Your task to perform on an android device: uninstall "Microsoft Outlook" Image 0: 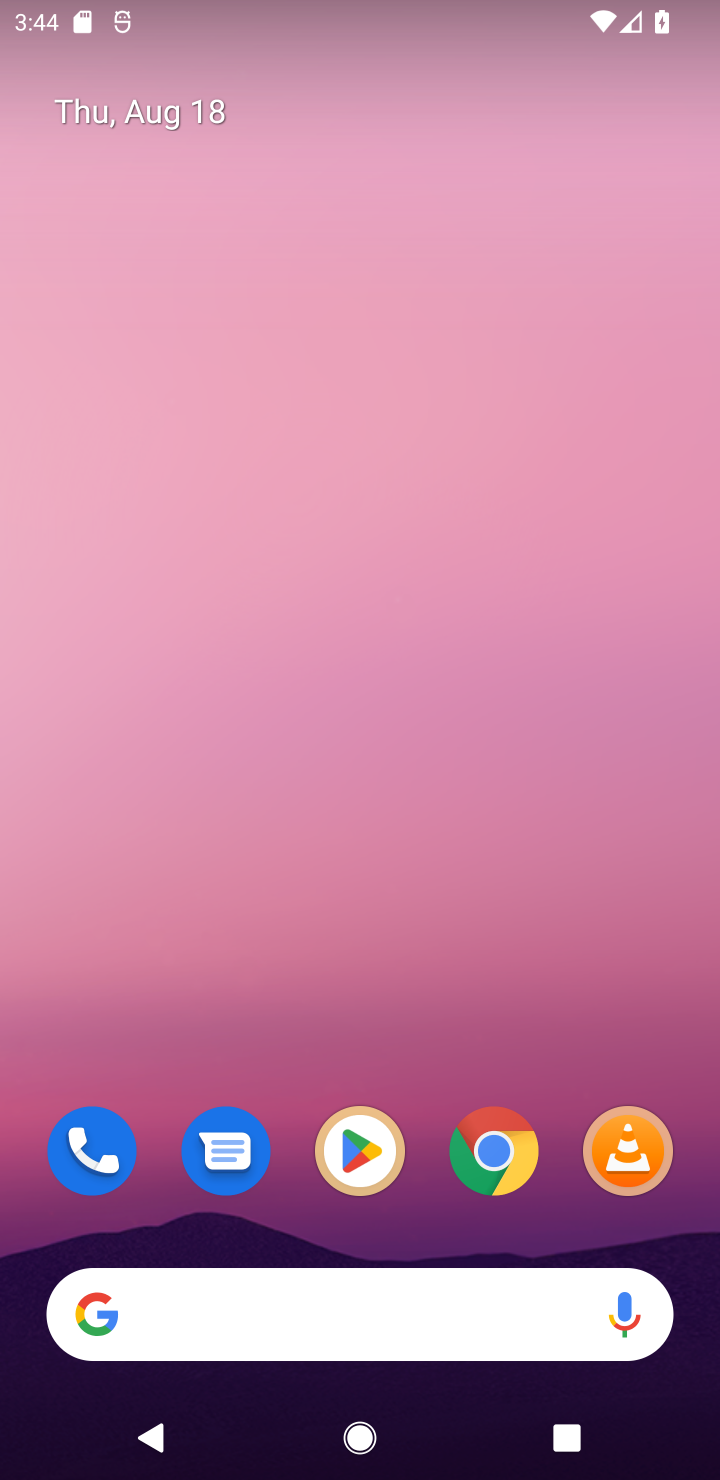
Step 0: drag from (429, 1252) to (440, 208)
Your task to perform on an android device: uninstall "Microsoft Outlook" Image 1: 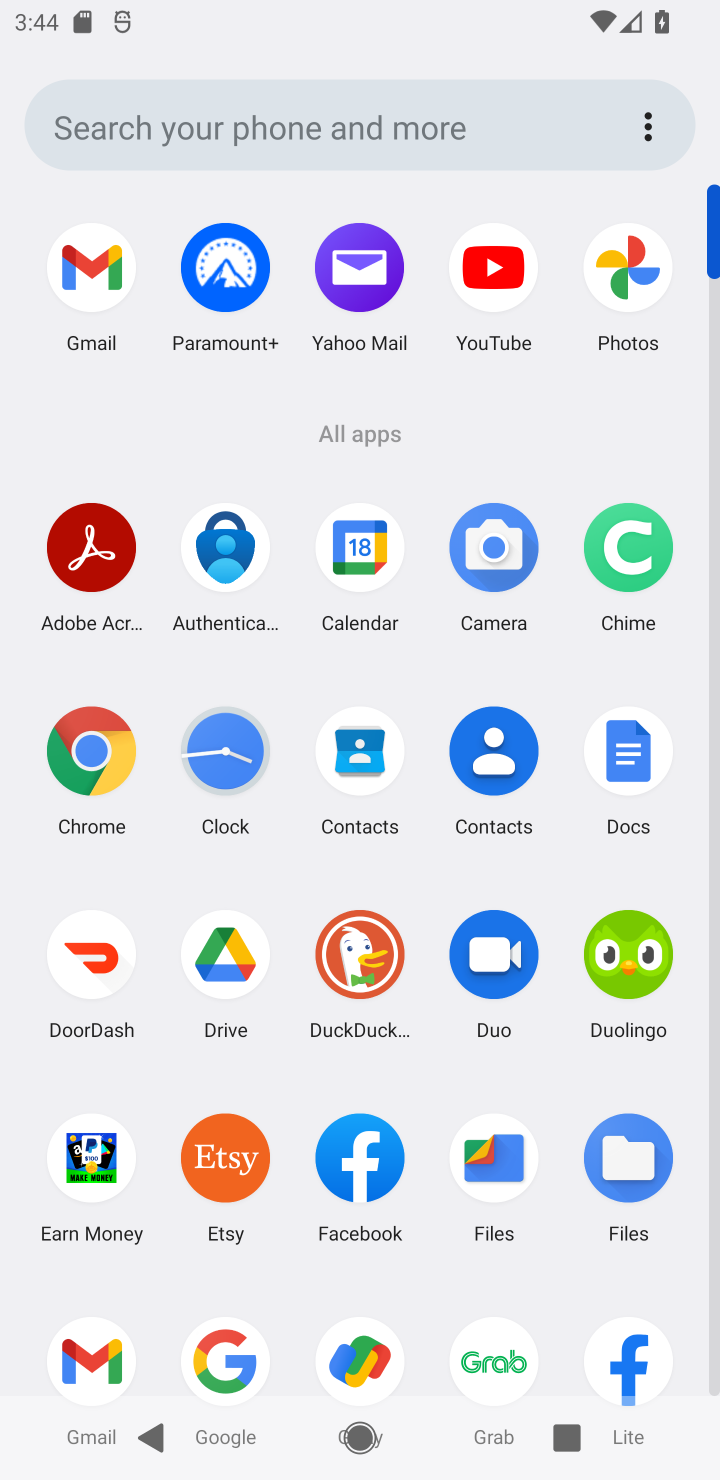
Step 1: drag from (557, 1290) to (516, 493)
Your task to perform on an android device: uninstall "Microsoft Outlook" Image 2: 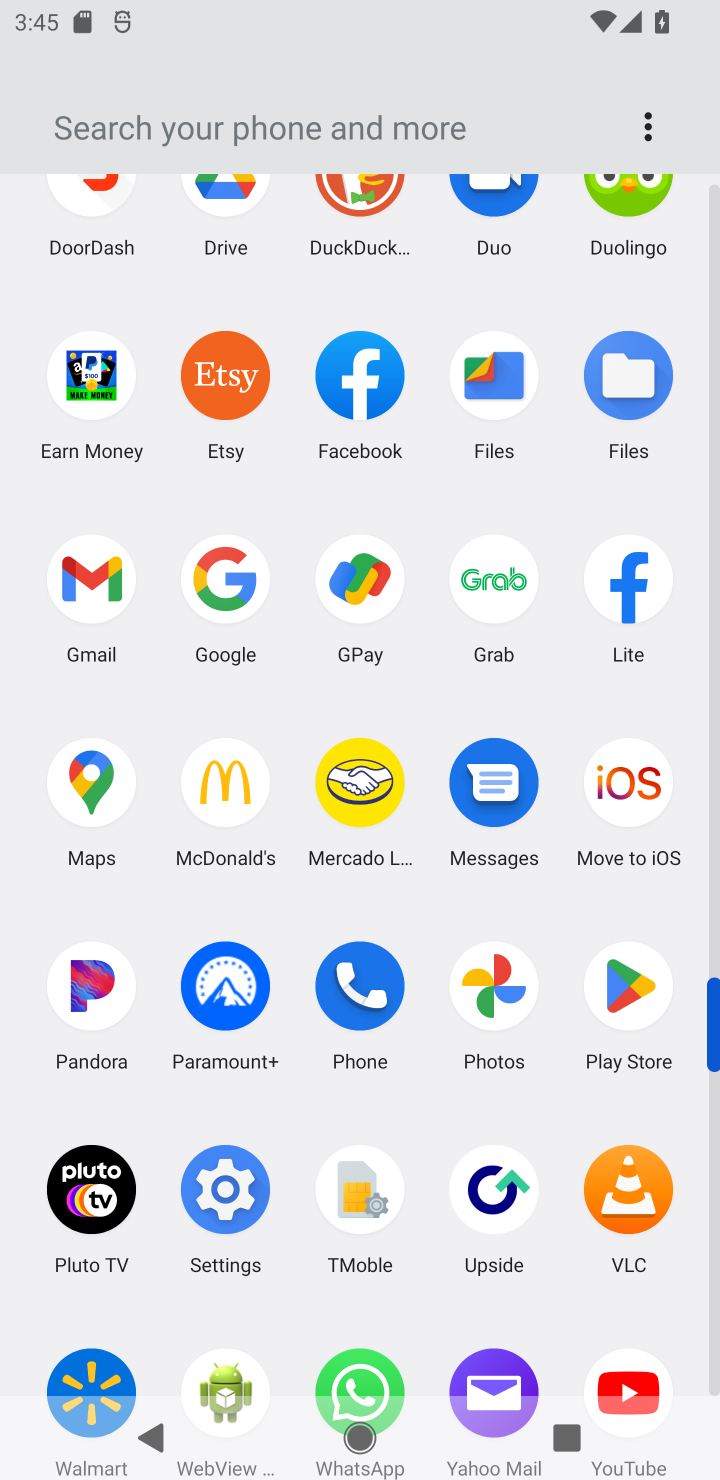
Step 2: press home button
Your task to perform on an android device: uninstall "Microsoft Outlook" Image 3: 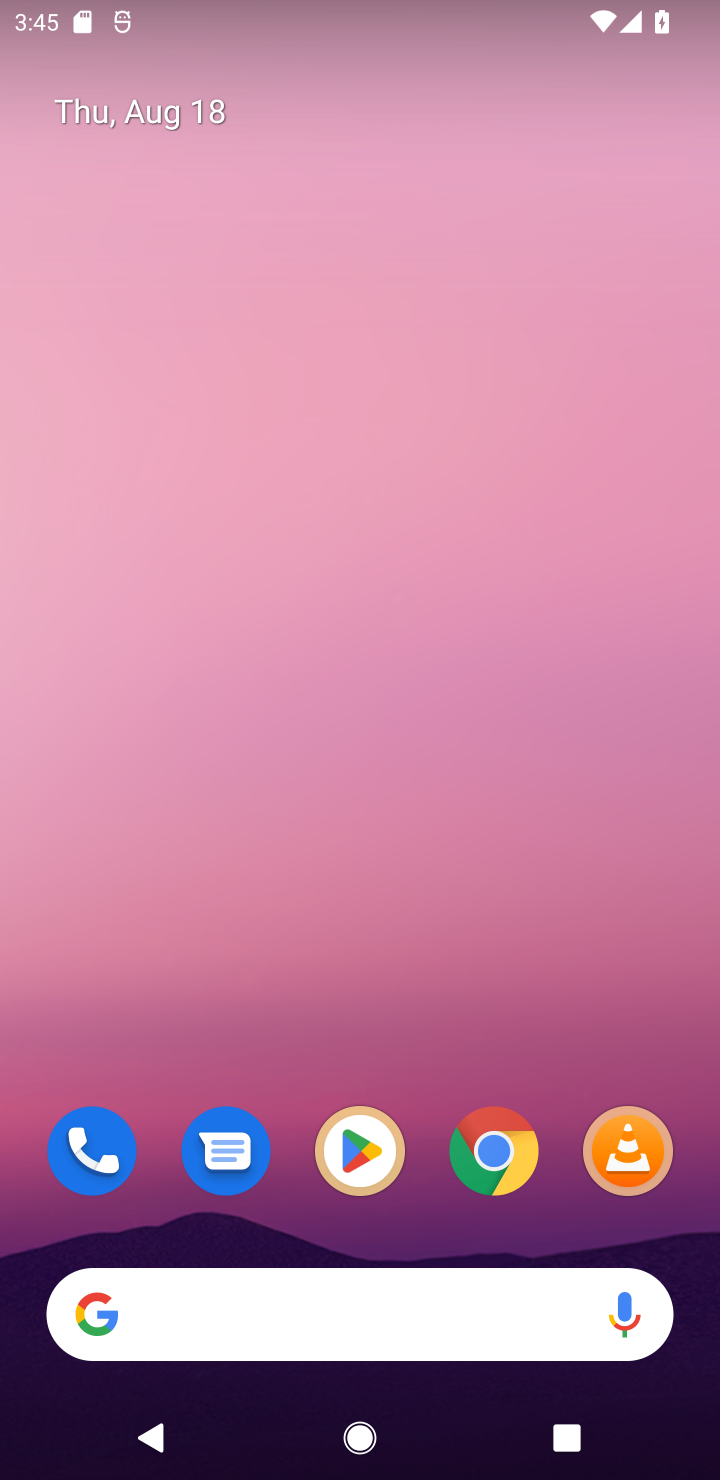
Step 3: click (352, 1153)
Your task to perform on an android device: uninstall "Microsoft Outlook" Image 4: 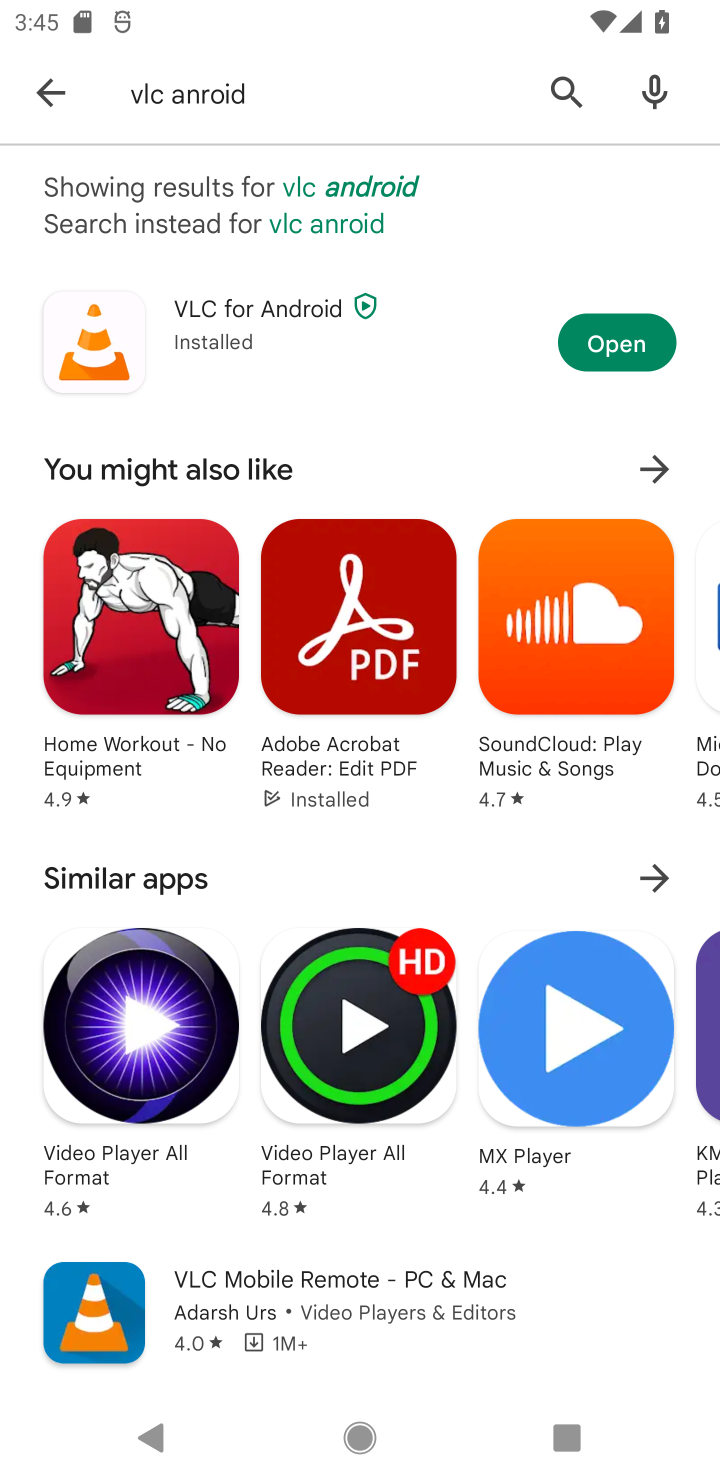
Step 4: click (575, 97)
Your task to perform on an android device: uninstall "Microsoft Outlook" Image 5: 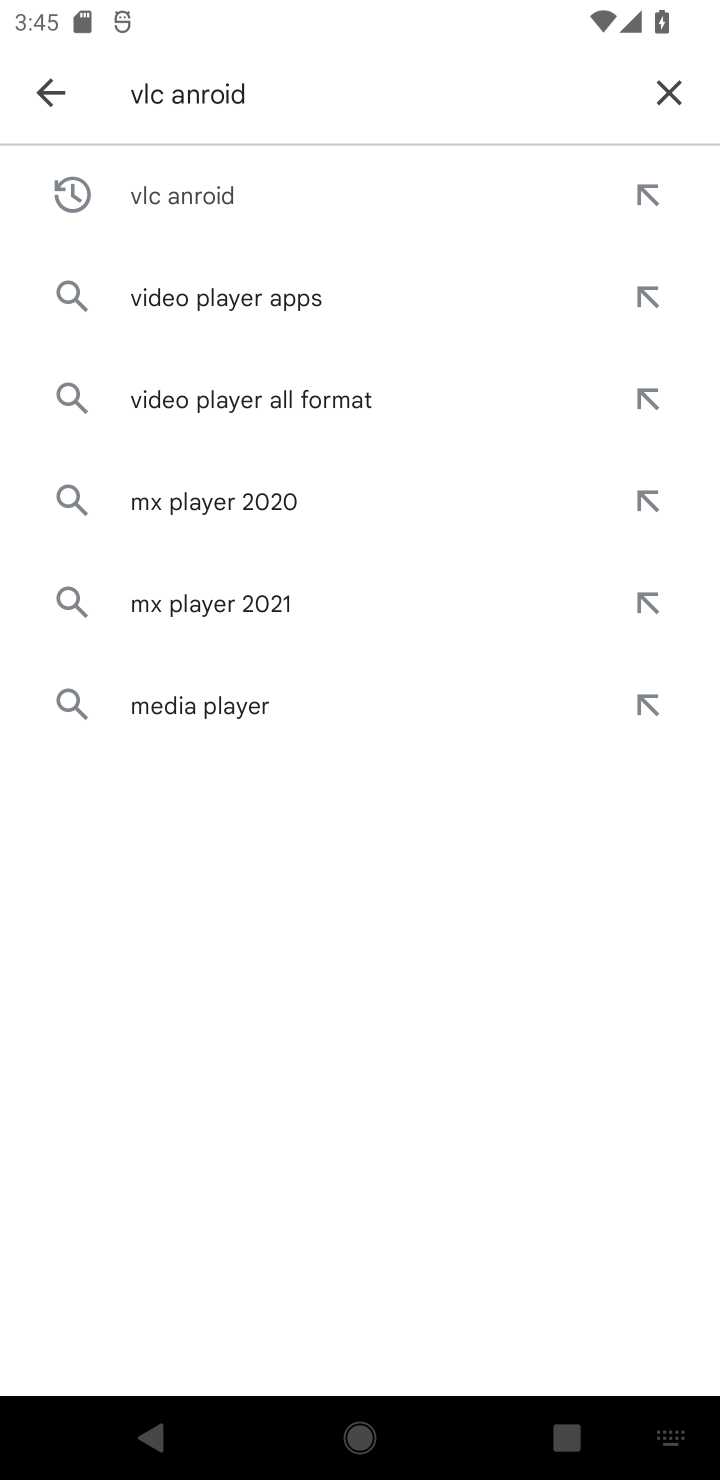
Step 5: click (677, 79)
Your task to perform on an android device: uninstall "Microsoft Outlook" Image 6: 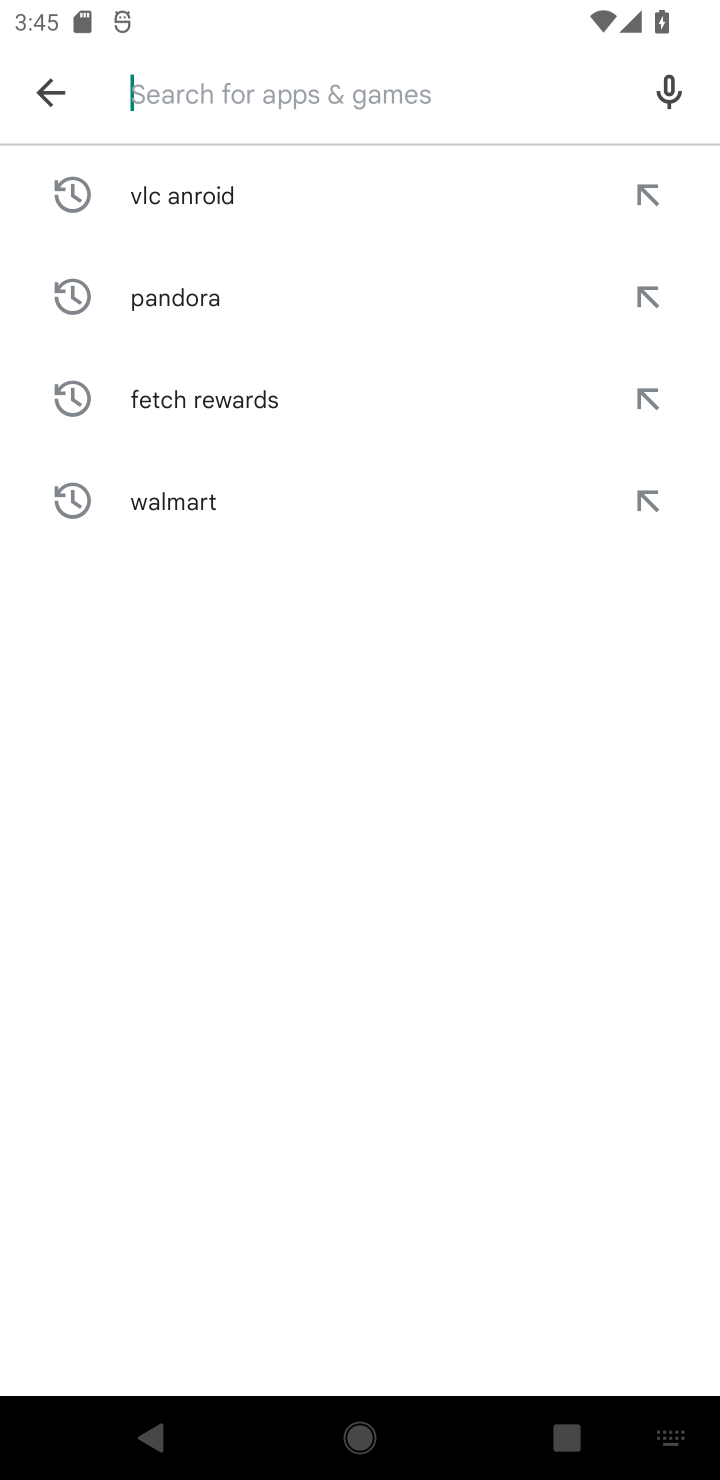
Step 6: type "microsft"
Your task to perform on an android device: uninstall "Microsoft Outlook" Image 7: 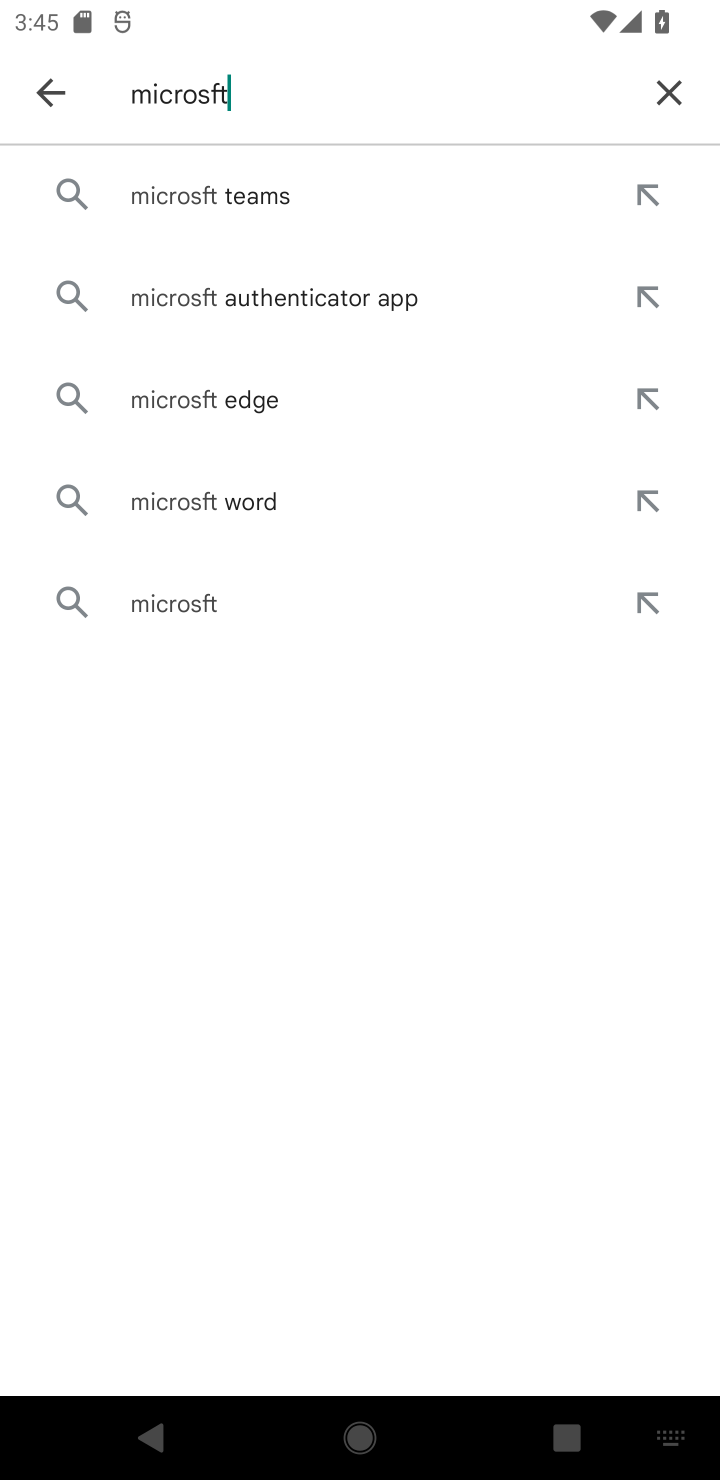
Step 7: type " outlook"
Your task to perform on an android device: uninstall "Microsoft Outlook" Image 8: 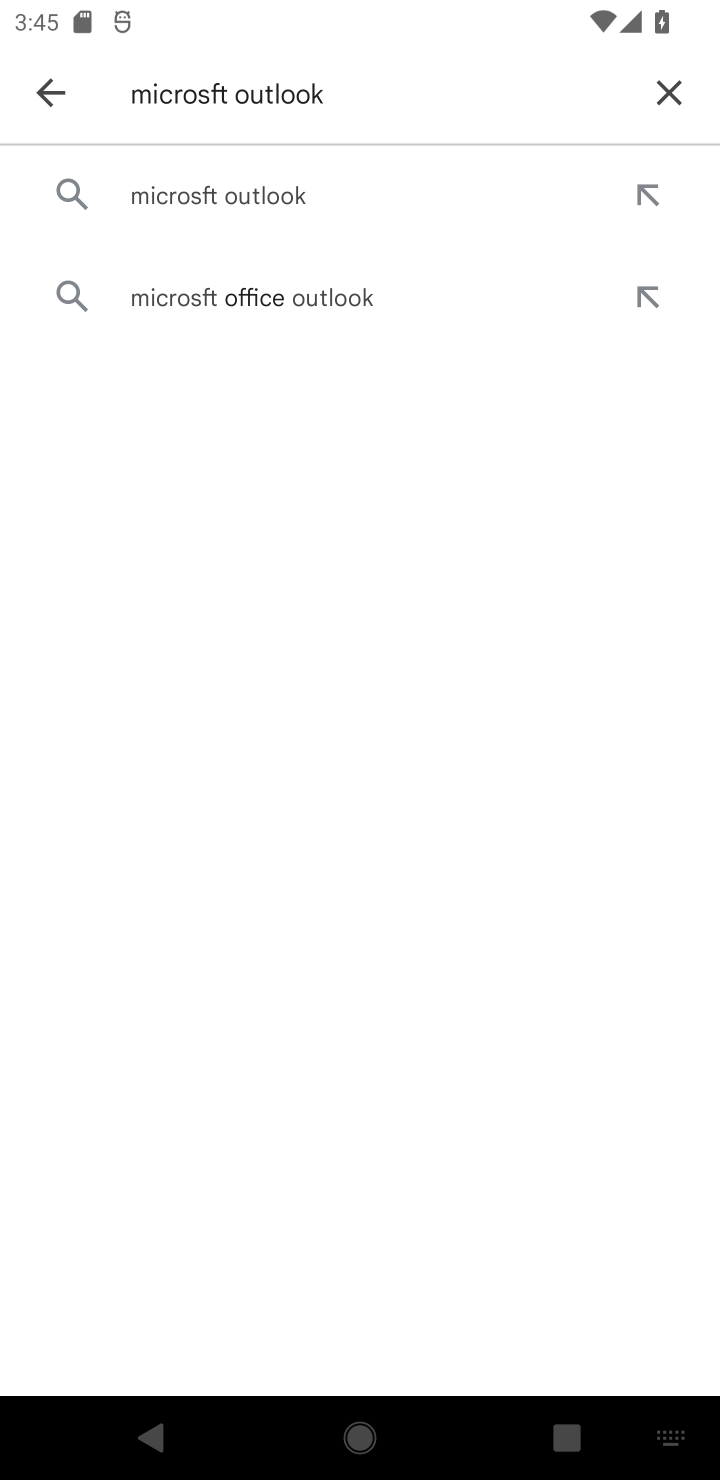
Step 8: click (293, 177)
Your task to perform on an android device: uninstall "Microsoft Outlook" Image 9: 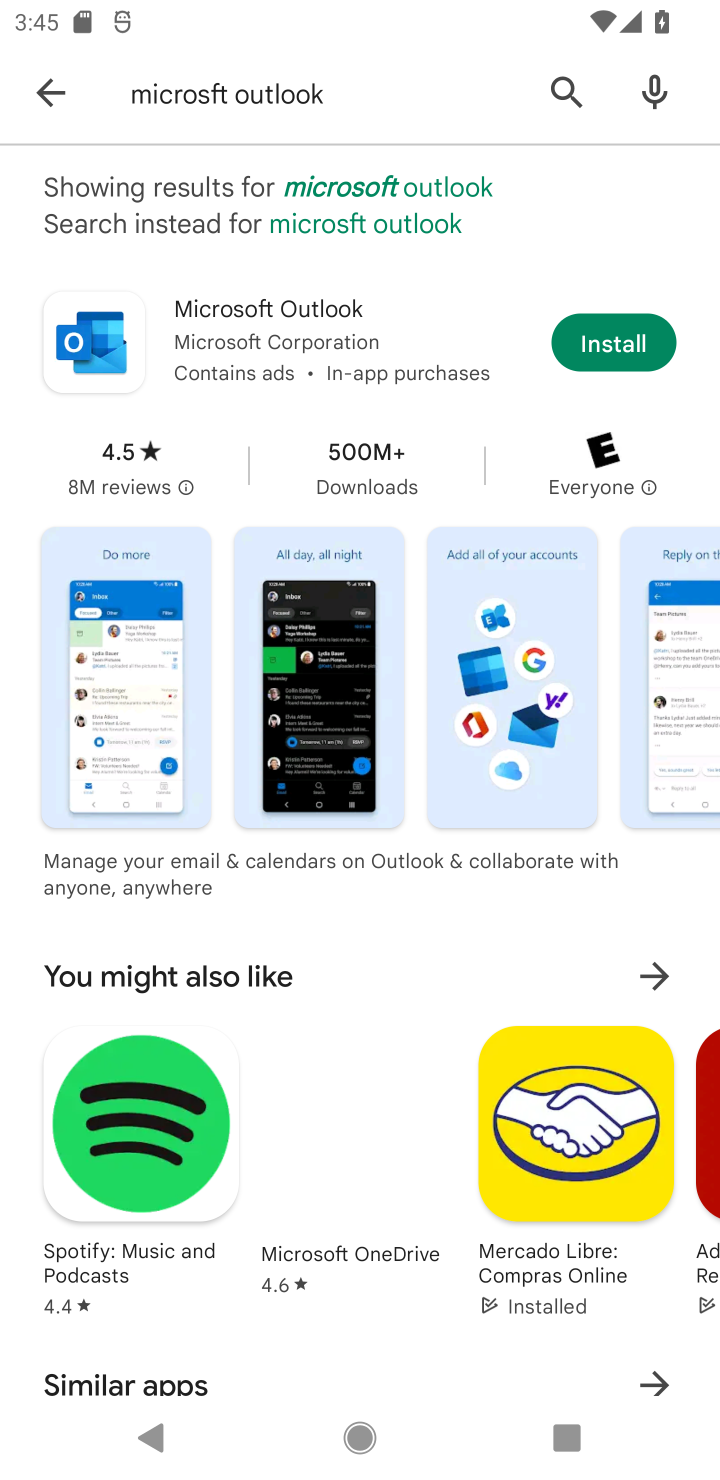
Step 9: click (598, 360)
Your task to perform on an android device: uninstall "Microsoft Outlook" Image 10: 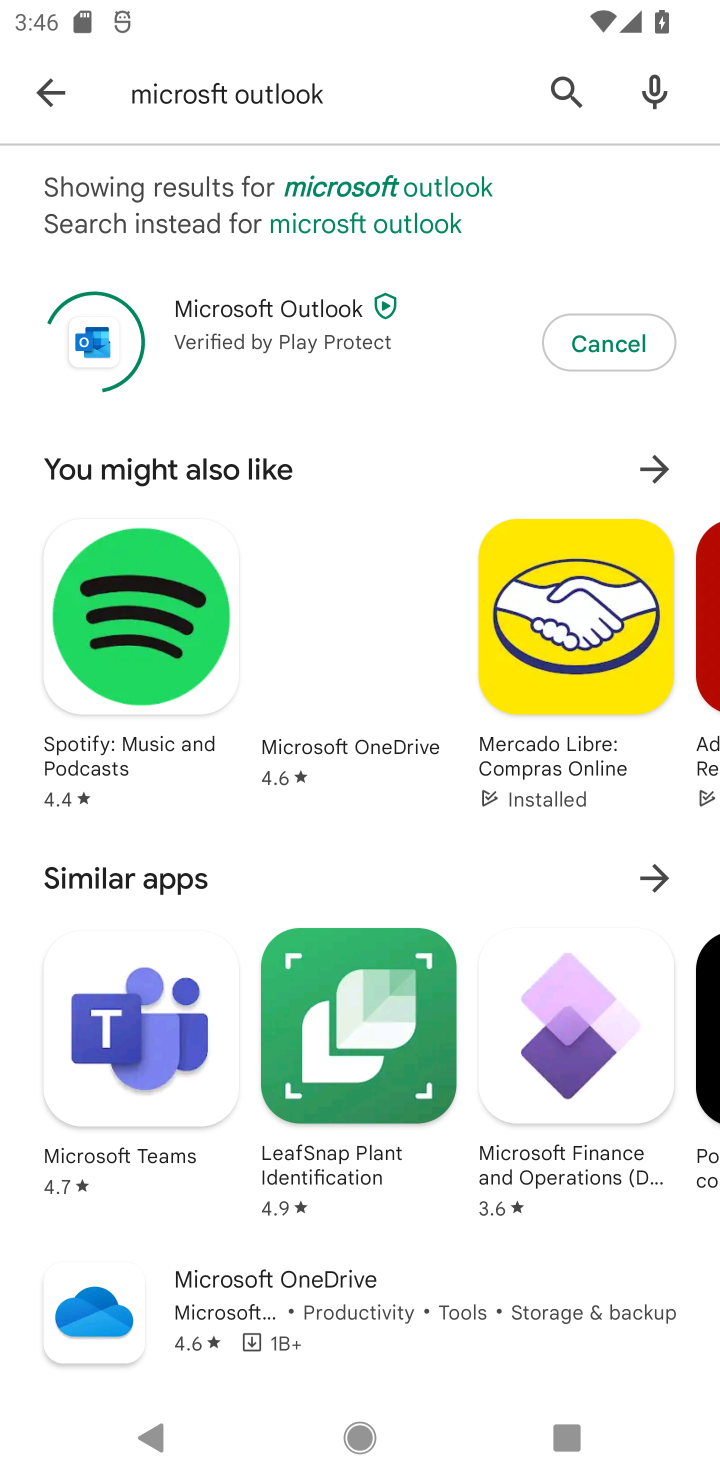
Step 10: task complete